Your task to perform on an android device: open wifi settings Image 0: 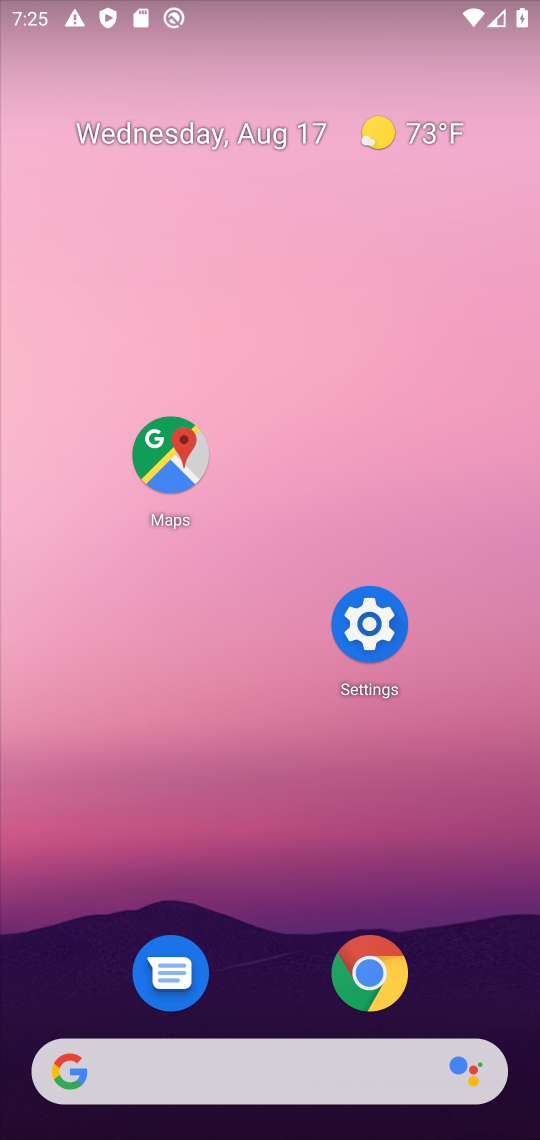
Step 0: click (371, 607)
Your task to perform on an android device: open wifi settings Image 1: 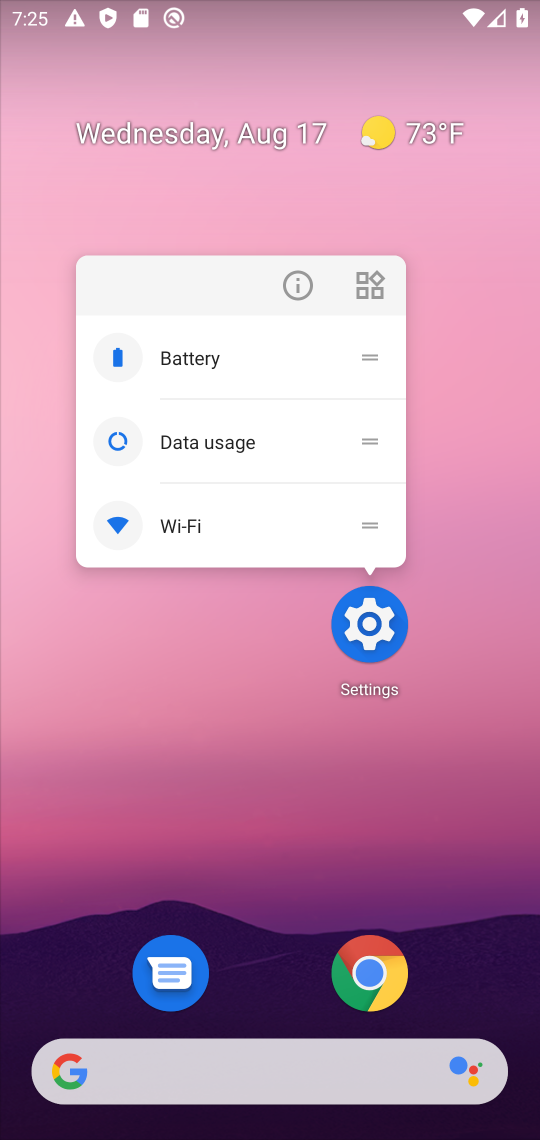
Step 1: click (371, 616)
Your task to perform on an android device: open wifi settings Image 2: 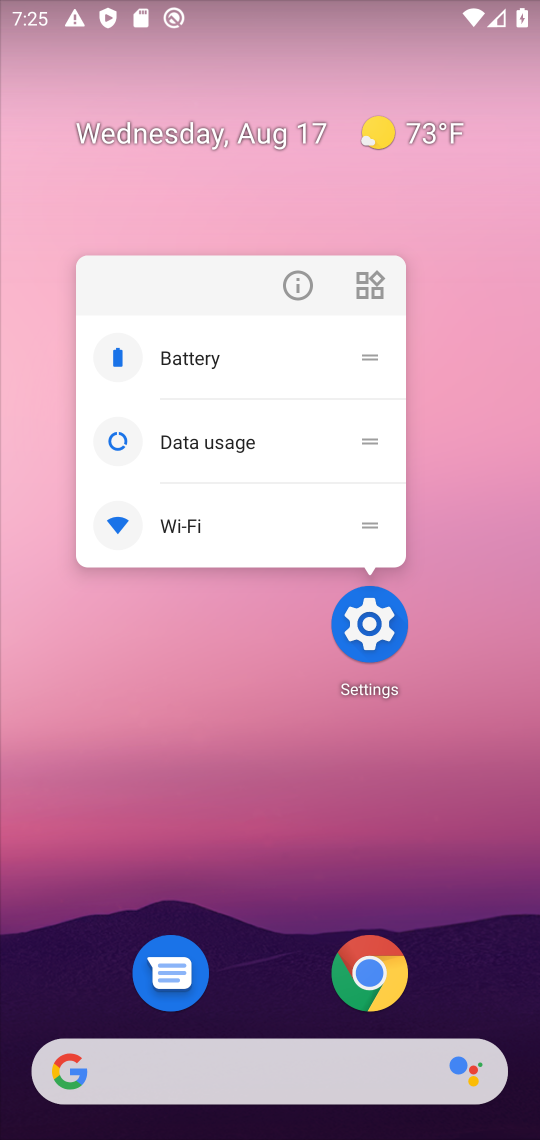
Step 2: click (374, 632)
Your task to perform on an android device: open wifi settings Image 3: 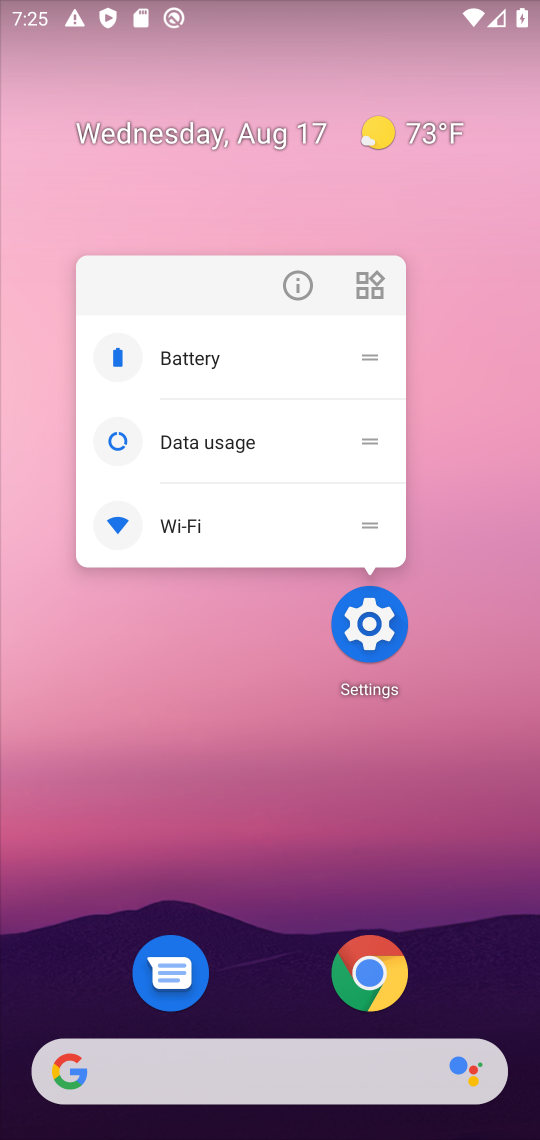
Step 3: click (378, 627)
Your task to perform on an android device: open wifi settings Image 4: 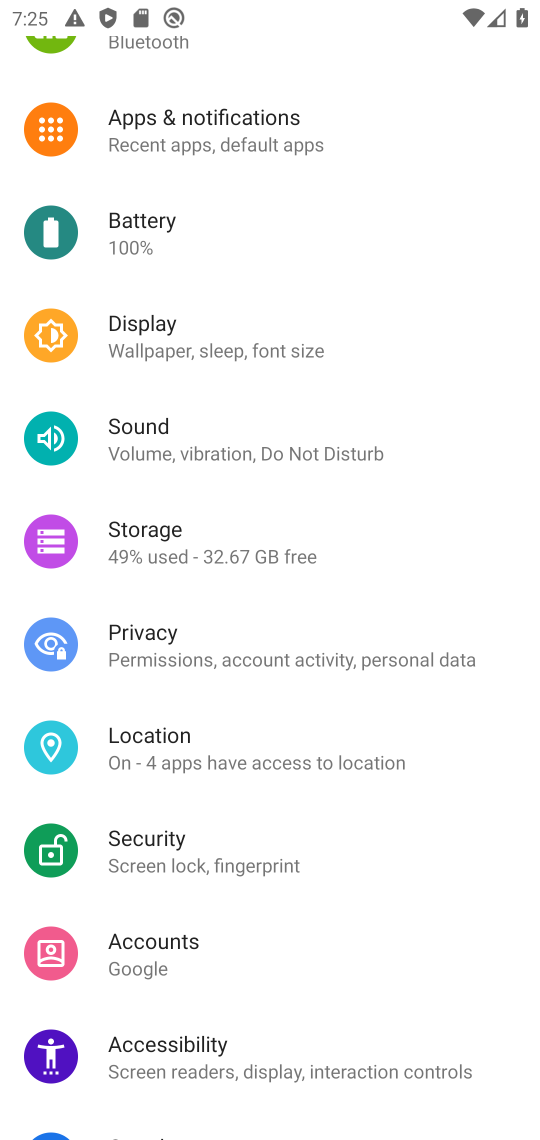
Step 4: drag from (408, 130) to (357, 495)
Your task to perform on an android device: open wifi settings Image 5: 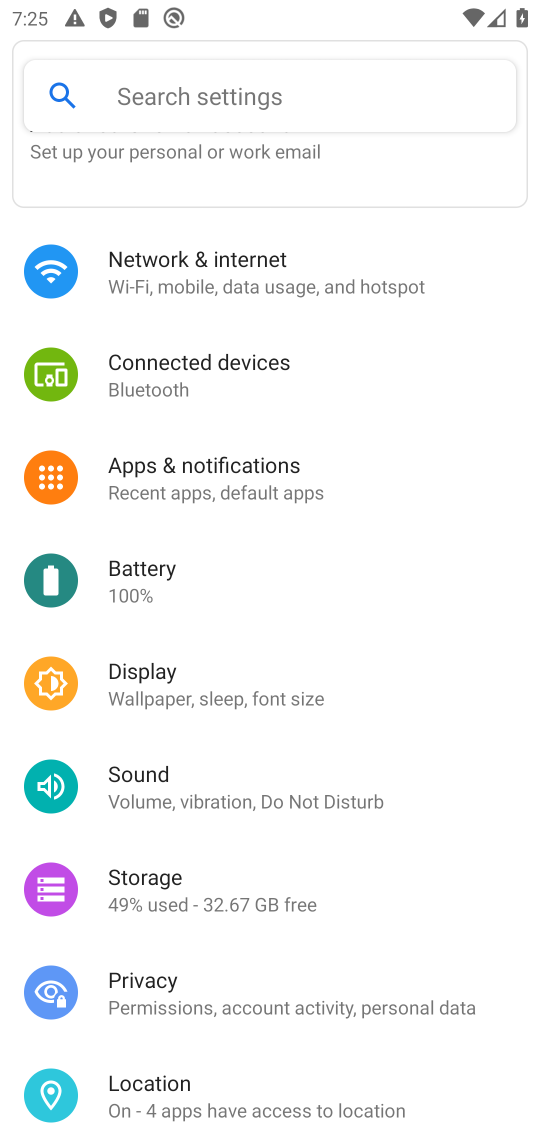
Step 5: click (216, 274)
Your task to perform on an android device: open wifi settings Image 6: 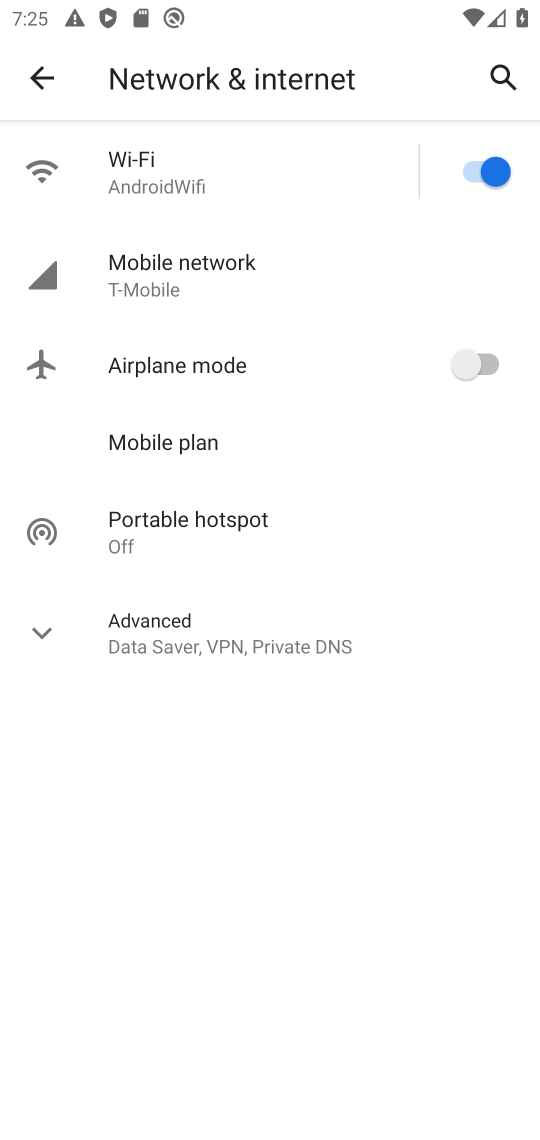
Step 6: click (162, 181)
Your task to perform on an android device: open wifi settings Image 7: 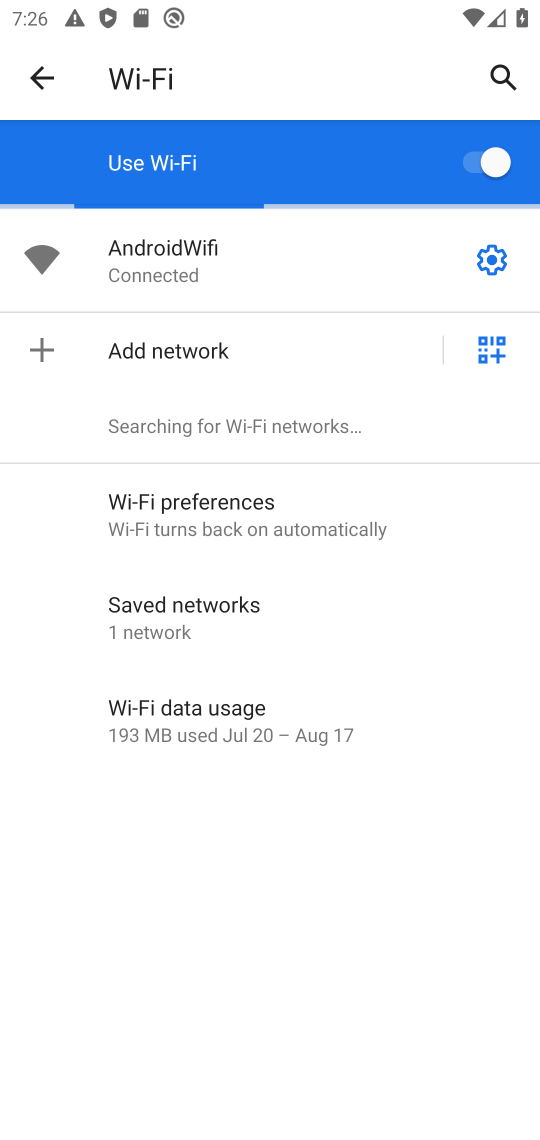
Step 7: task complete